Your task to perform on an android device: Go to internet settings Image 0: 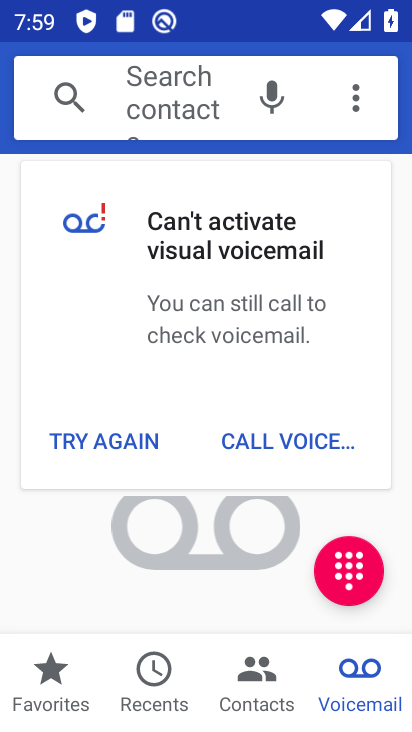
Step 0: drag from (259, 24) to (182, 701)
Your task to perform on an android device: Go to internet settings Image 1: 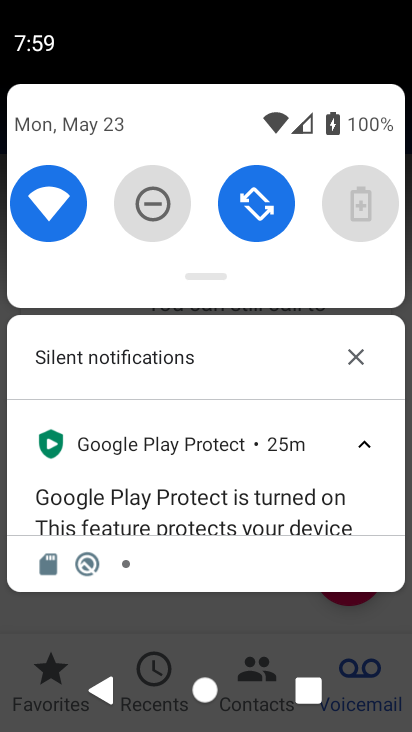
Step 1: drag from (247, 138) to (254, 676)
Your task to perform on an android device: Go to internet settings Image 2: 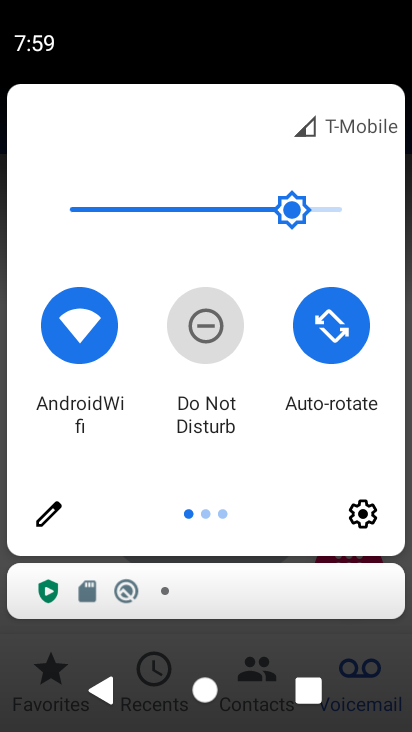
Step 2: drag from (387, 433) to (67, 477)
Your task to perform on an android device: Go to internet settings Image 3: 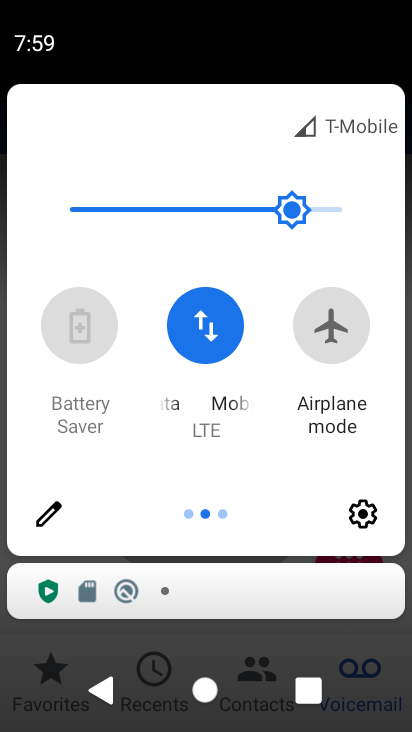
Step 3: click (213, 317)
Your task to perform on an android device: Go to internet settings Image 4: 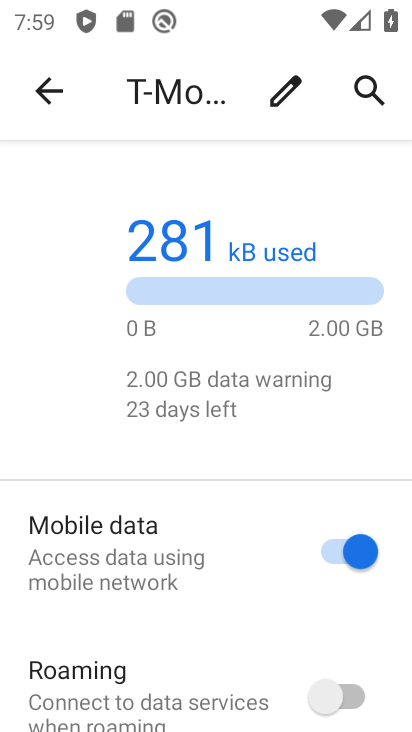
Step 4: task complete